Your task to perform on an android device: Go to accessibility settings Image 0: 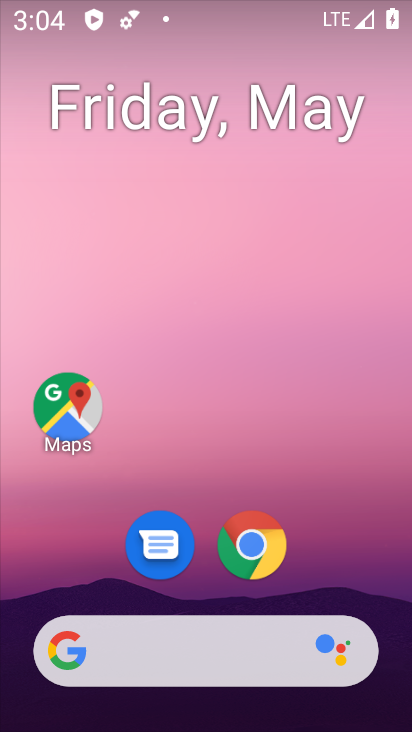
Step 0: drag from (351, 527) to (285, 88)
Your task to perform on an android device: Go to accessibility settings Image 1: 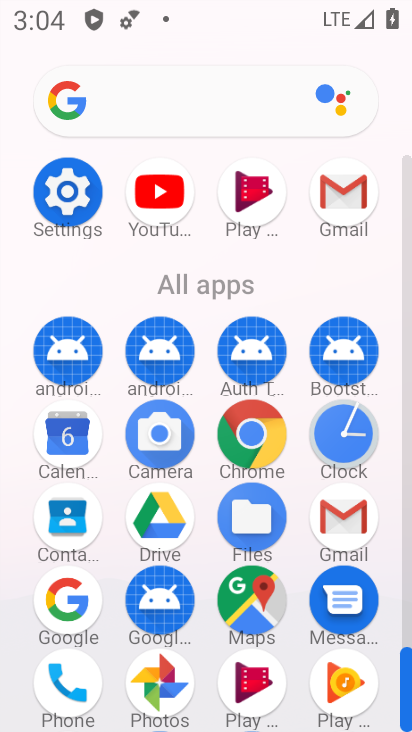
Step 1: click (74, 201)
Your task to perform on an android device: Go to accessibility settings Image 2: 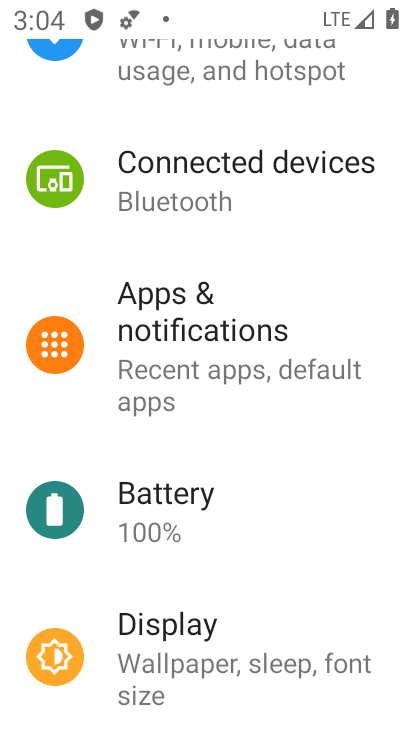
Step 2: drag from (292, 581) to (299, 104)
Your task to perform on an android device: Go to accessibility settings Image 3: 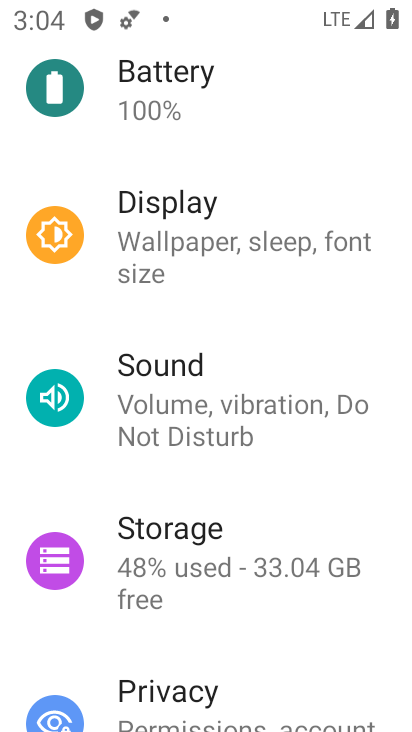
Step 3: drag from (276, 609) to (305, 167)
Your task to perform on an android device: Go to accessibility settings Image 4: 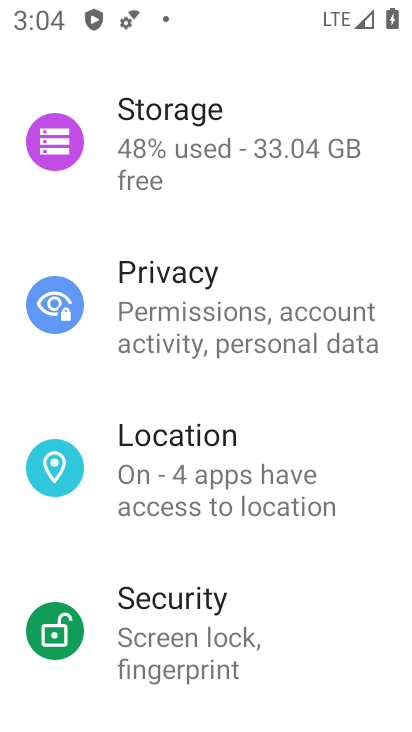
Step 4: drag from (193, 587) to (279, 219)
Your task to perform on an android device: Go to accessibility settings Image 5: 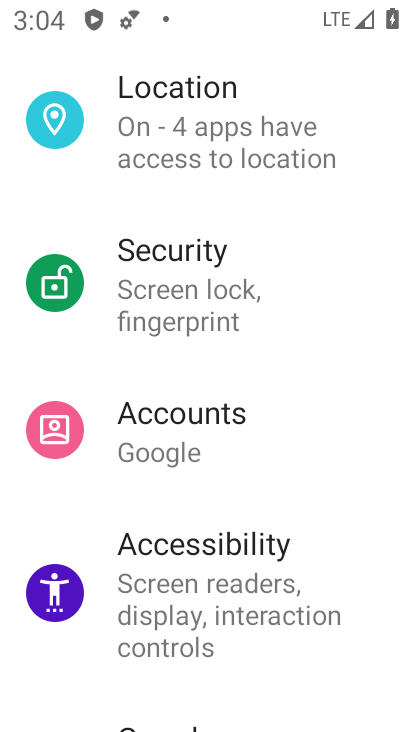
Step 5: click (203, 596)
Your task to perform on an android device: Go to accessibility settings Image 6: 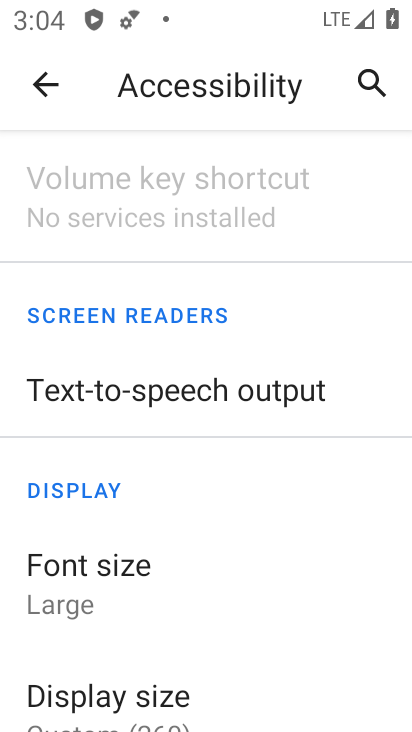
Step 6: task complete